Your task to perform on an android device: Turn on the flashlight Image 0: 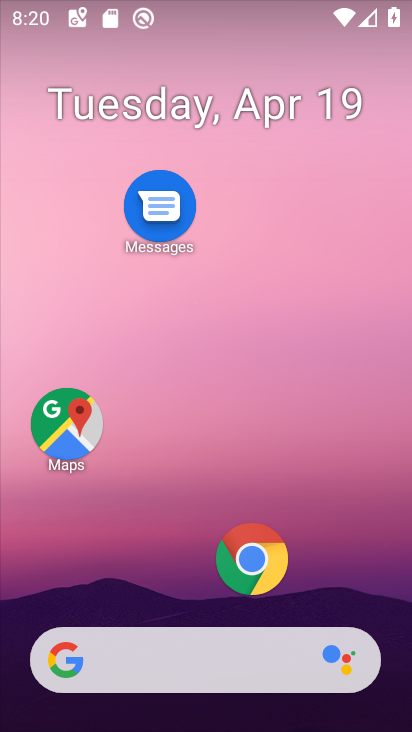
Step 0: drag from (160, 11) to (105, 422)
Your task to perform on an android device: Turn on the flashlight Image 1: 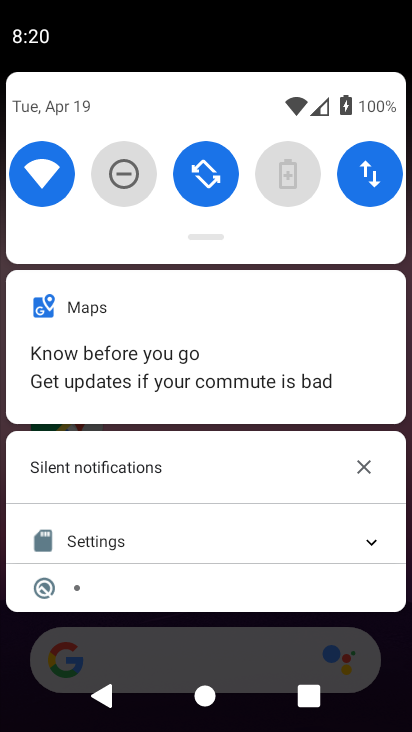
Step 1: drag from (207, 243) to (128, 553)
Your task to perform on an android device: Turn on the flashlight Image 2: 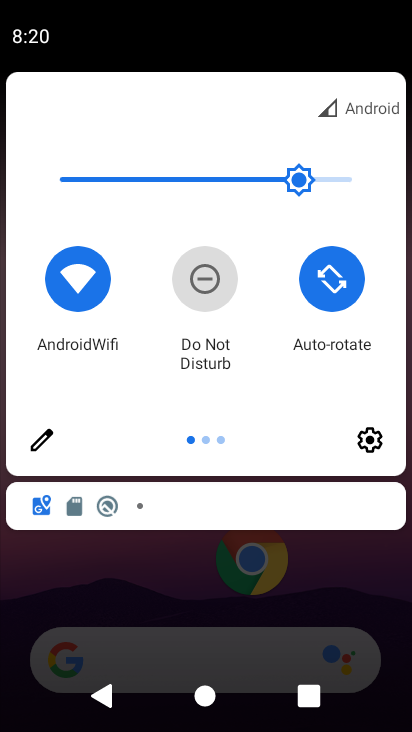
Step 2: click (48, 442)
Your task to perform on an android device: Turn on the flashlight Image 3: 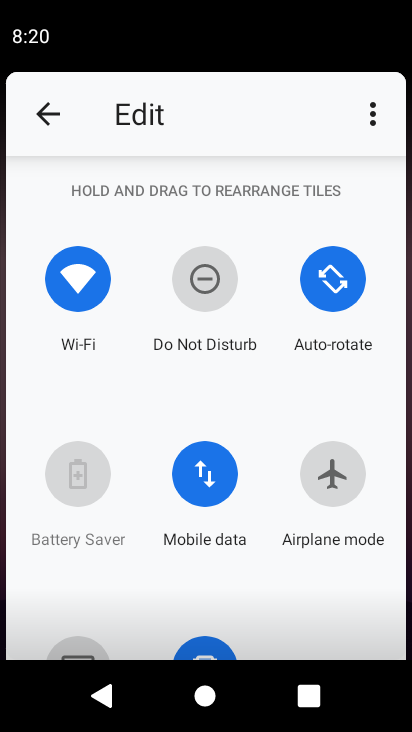
Step 3: task complete